Your task to perform on an android device: Turn off the flashlight Image 0: 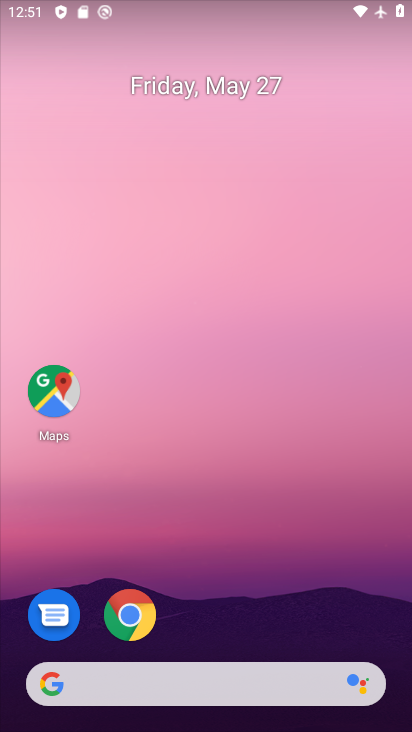
Step 0: press home button
Your task to perform on an android device: Turn off the flashlight Image 1: 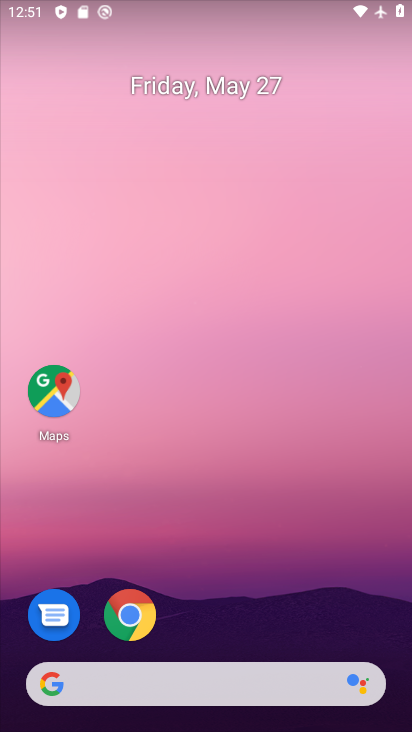
Step 1: task complete